Your task to perform on an android device: remove spam from my inbox in the gmail app Image 0: 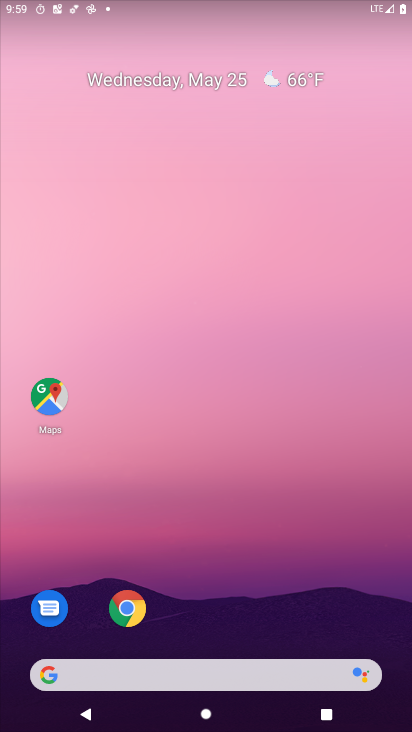
Step 0: drag from (247, 729) to (238, 174)
Your task to perform on an android device: remove spam from my inbox in the gmail app Image 1: 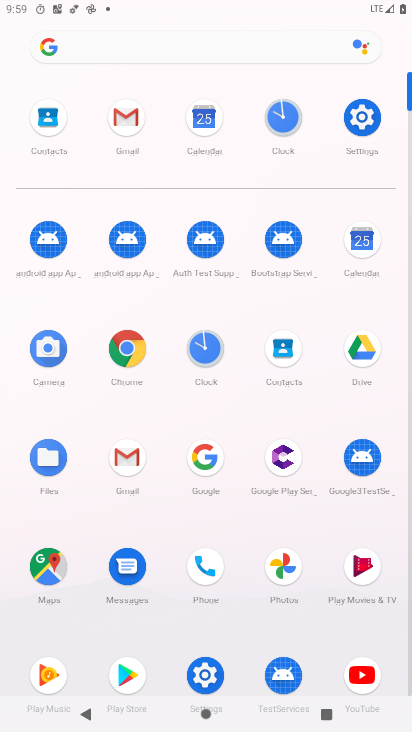
Step 1: click (125, 465)
Your task to perform on an android device: remove spam from my inbox in the gmail app Image 2: 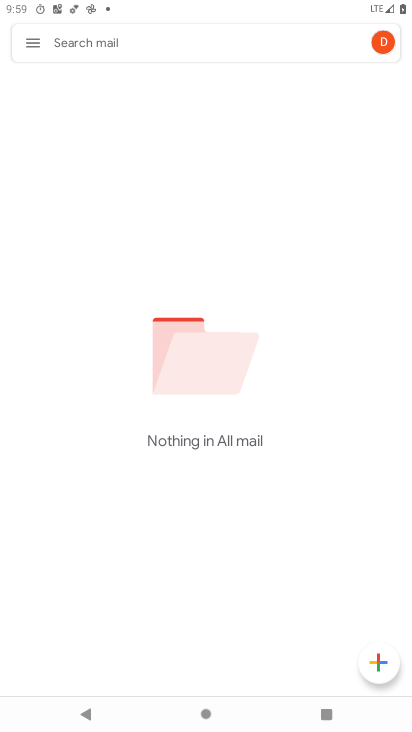
Step 2: click (33, 41)
Your task to perform on an android device: remove spam from my inbox in the gmail app Image 3: 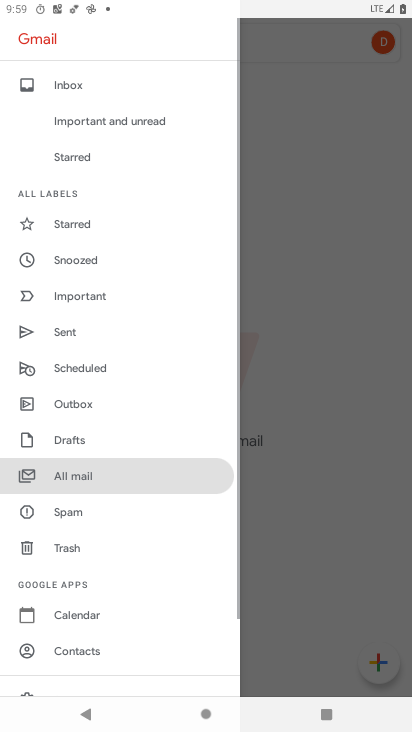
Step 3: click (68, 87)
Your task to perform on an android device: remove spam from my inbox in the gmail app Image 4: 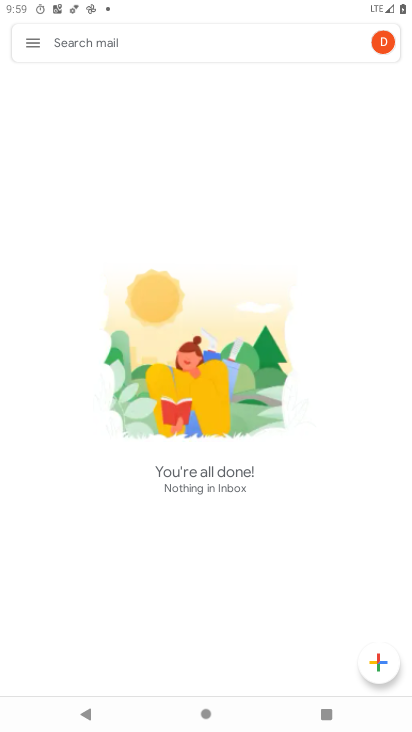
Step 4: task complete